Your task to perform on an android device: Check the news Image 0: 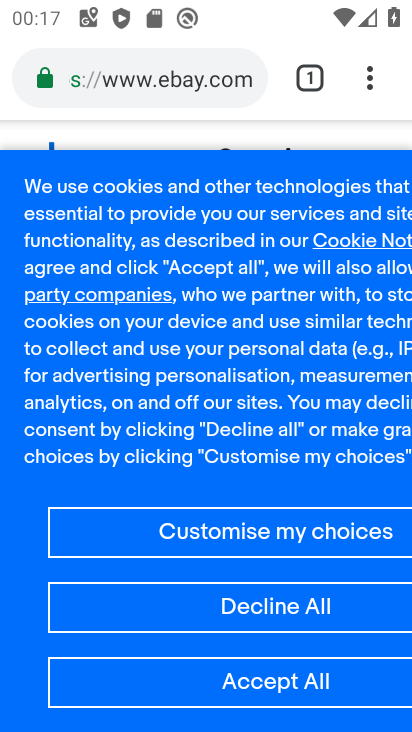
Step 0: press home button
Your task to perform on an android device: Check the news Image 1: 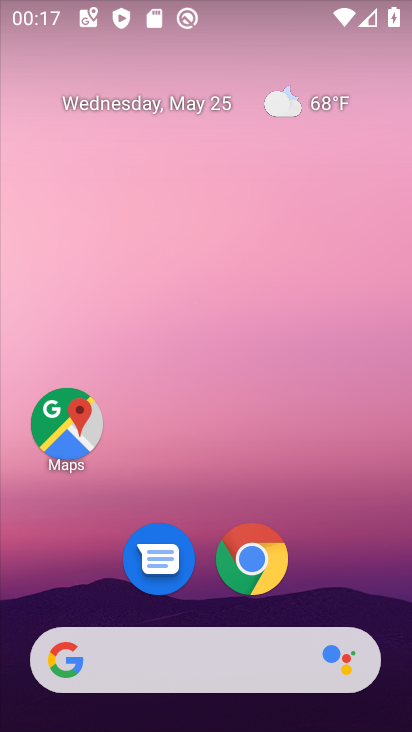
Step 1: task complete